Your task to perform on an android device: Go to settings Image 0: 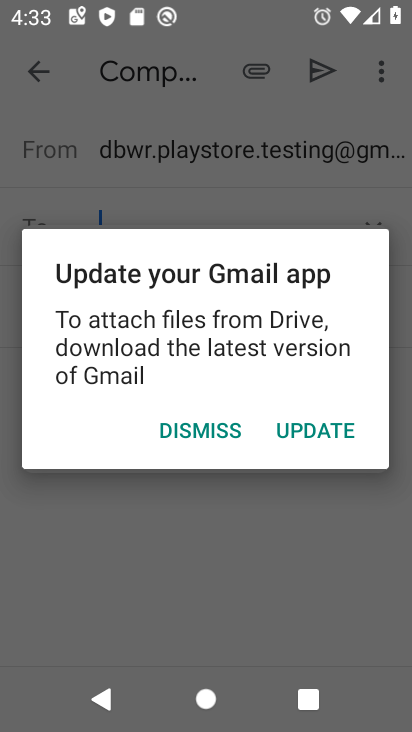
Step 0: press home button
Your task to perform on an android device: Go to settings Image 1: 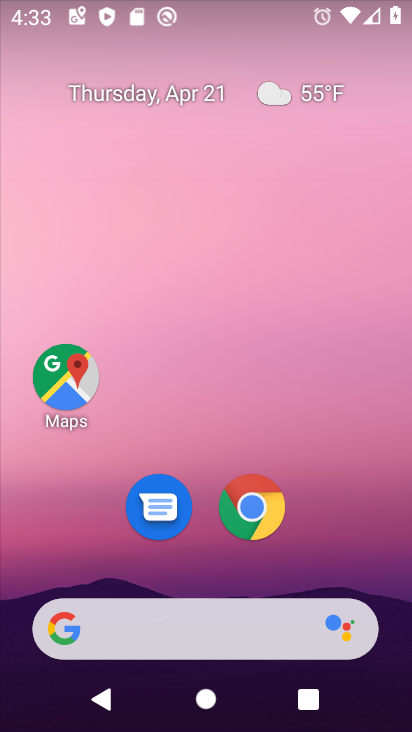
Step 1: drag from (301, 354) to (271, 81)
Your task to perform on an android device: Go to settings Image 2: 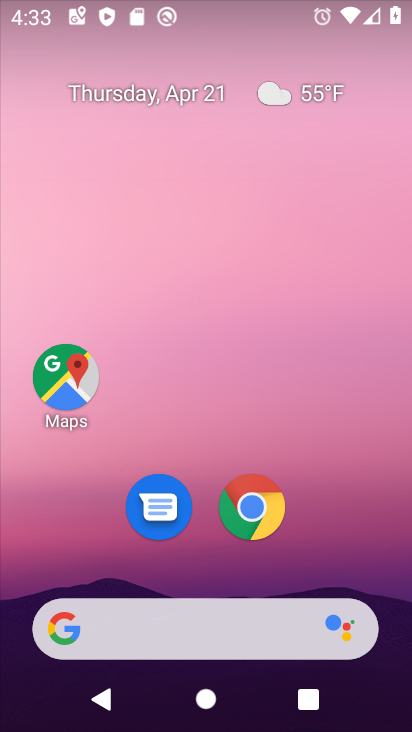
Step 2: drag from (324, 527) to (294, 68)
Your task to perform on an android device: Go to settings Image 3: 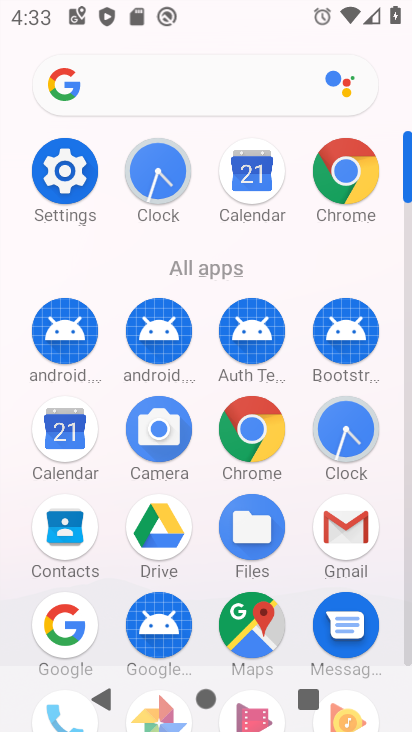
Step 3: click (64, 168)
Your task to perform on an android device: Go to settings Image 4: 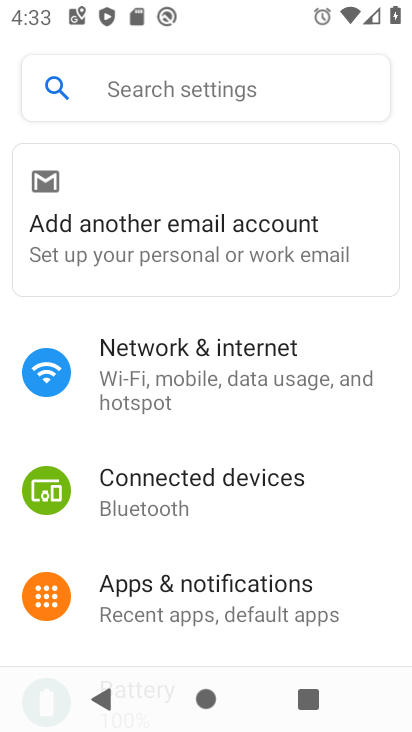
Step 4: task complete